Your task to perform on an android device: make emails show in primary in the gmail app Image 0: 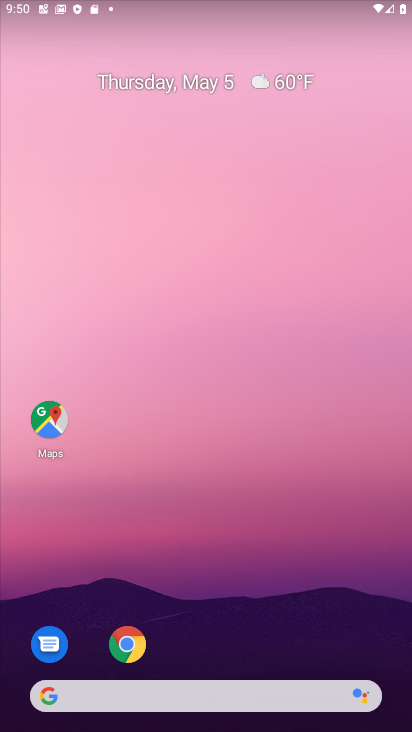
Step 0: click (234, 124)
Your task to perform on an android device: make emails show in primary in the gmail app Image 1: 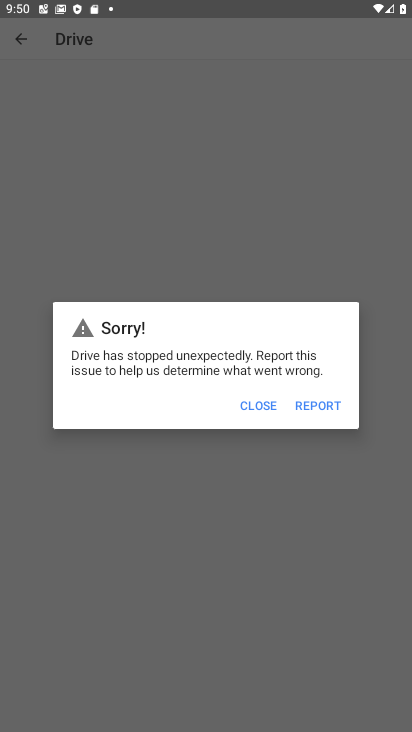
Step 1: press home button
Your task to perform on an android device: make emails show in primary in the gmail app Image 2: 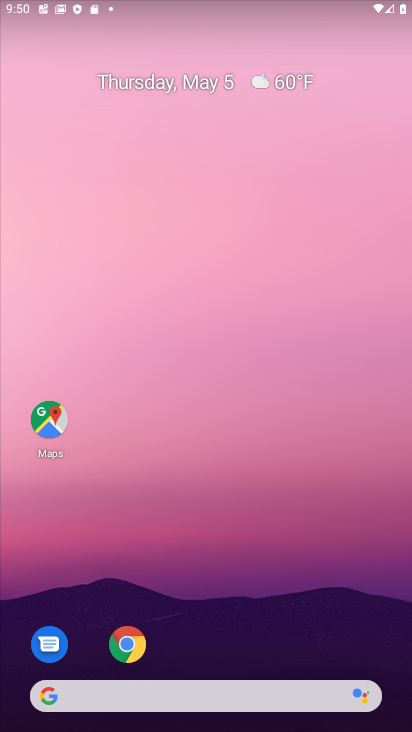
Step 2: drag from (222, 622) to (233, 193)
Your task to perform on an android device: make emails show in primary in the gmail app Image 3: 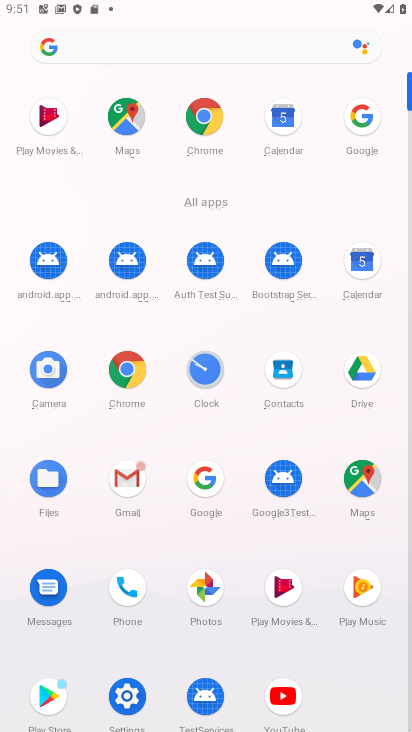
Step 3: click (133, 487)
Your task to perform on an android device: make emails show in primary in the gmail app Image 4: 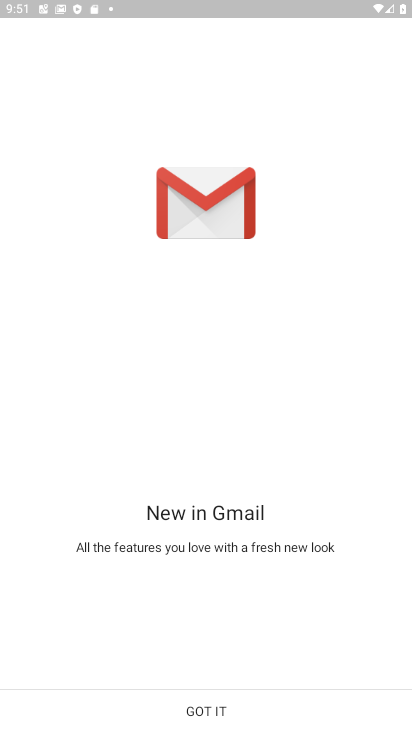
Step 4: click (220, 715)
Your task to perform on an android device: make emails show in primary in the gmail app Image 5: 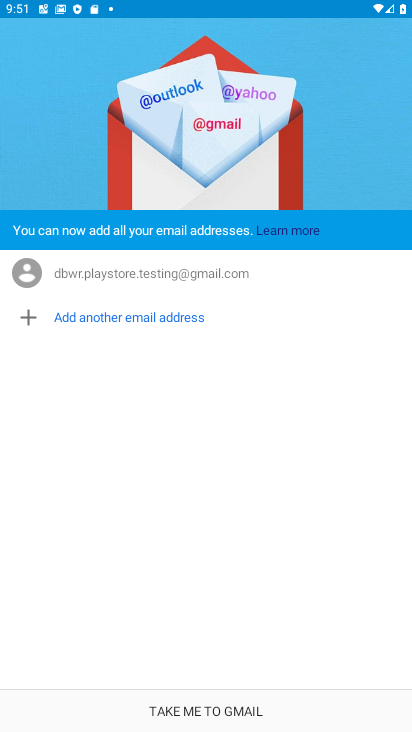
Step 5: click (220, 715)
Your task to perform on an android device: make emails show in primary in the gmail app Image 6: 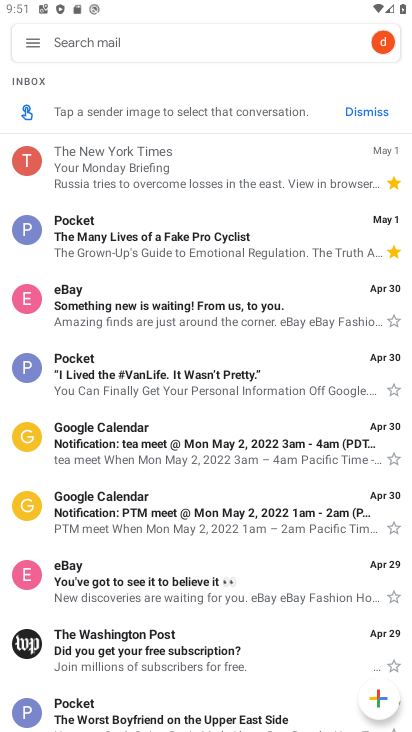
Step 6: click (29, 44)
Your task to perform on an android device: make emails show in primary in the gmail app Image 7: 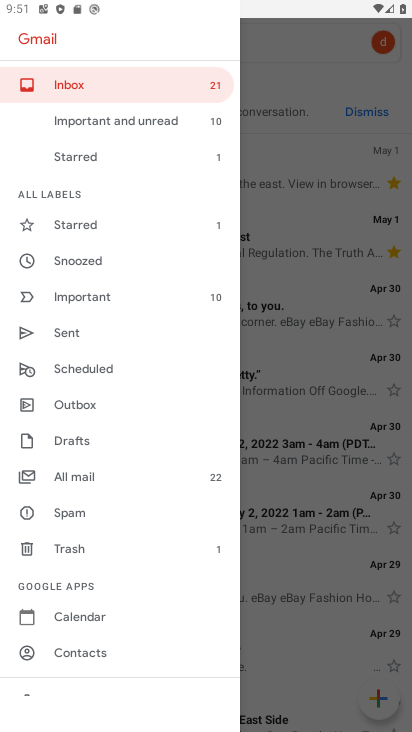
Step 7: click (331, 89)
Your task to perform on an android device: make emails show in primary in the gmail app Image 8: 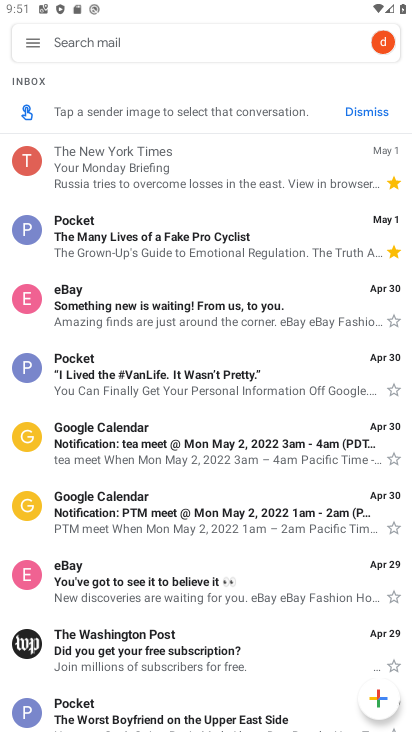
Step 8: click (32, 49)
Your task to perform on an android device: make emails show in primary in the gmail app Image 9: 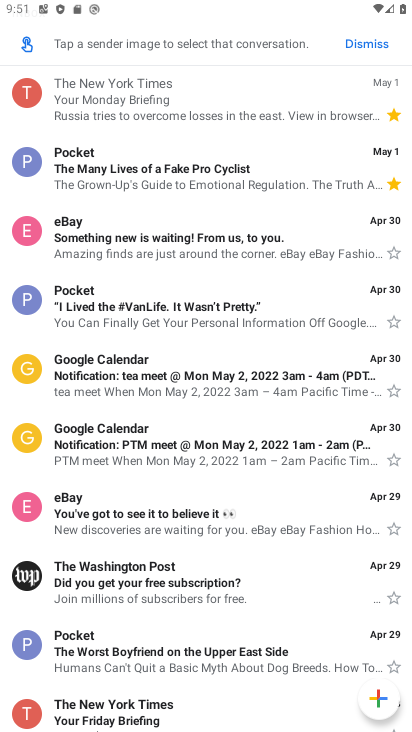
Step 9: click (30, 40)
Your task to perform on an android device: make emails show in primary in the gmail app Image 10: 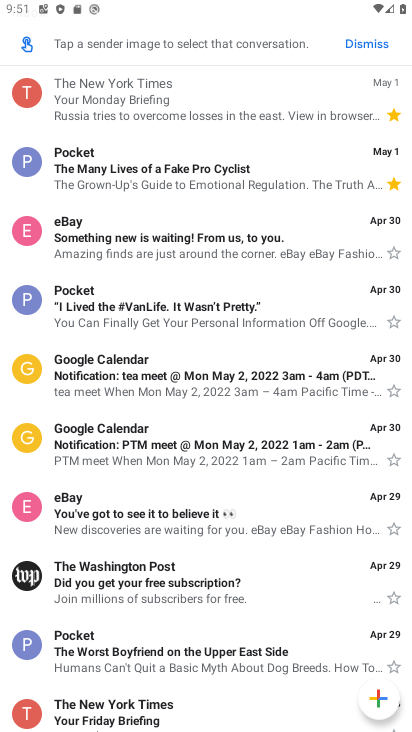
Step 10: click (368, 41)
Your task to perform on an android device: make emails show in primary in the gmail app Image 11: 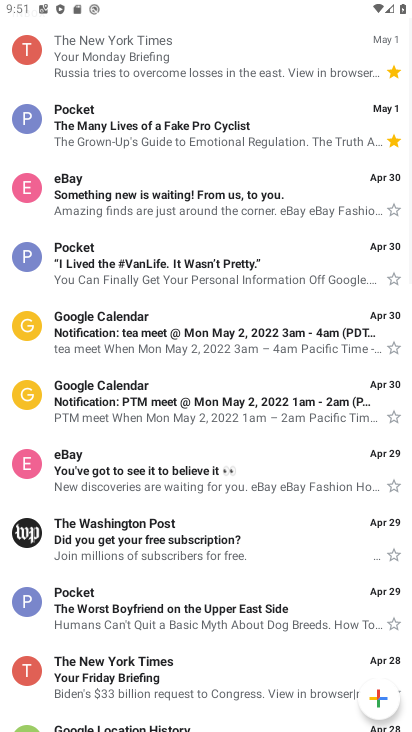
Step 11: drag from (90, 239) to (93, 612)
Your task to perform on an android device: make emails show in primary in the gmail app Image 12: 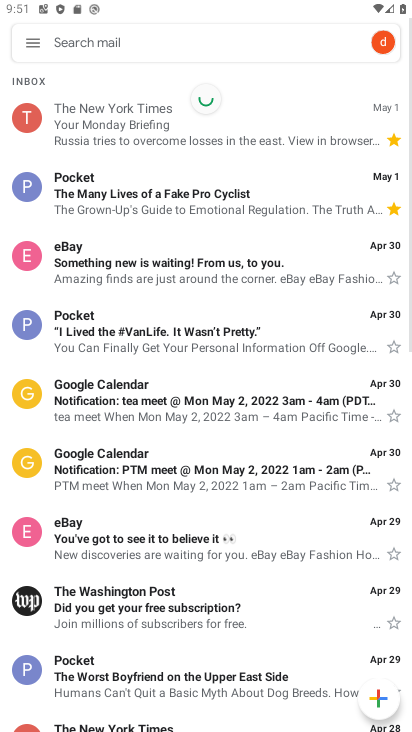
Step 12: click (32, 48)
Your task to perform on an android device: make emails show in primary in the gmail app Image 13: 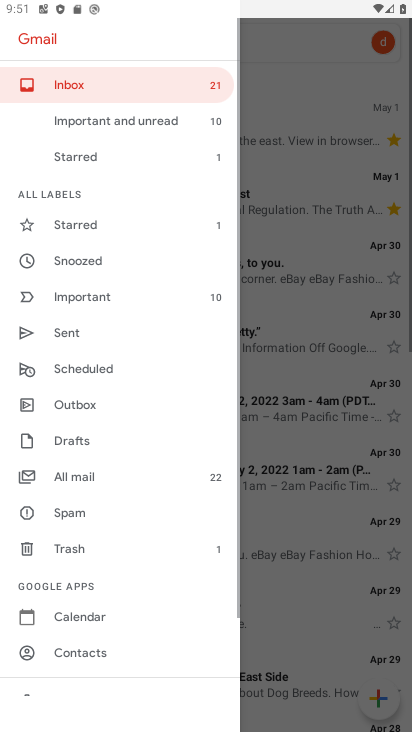
Step 13: drag from (98, 646) to (114, 300)
Your task to perform on an android device: make emails show in primary in the gmail app Image 14: 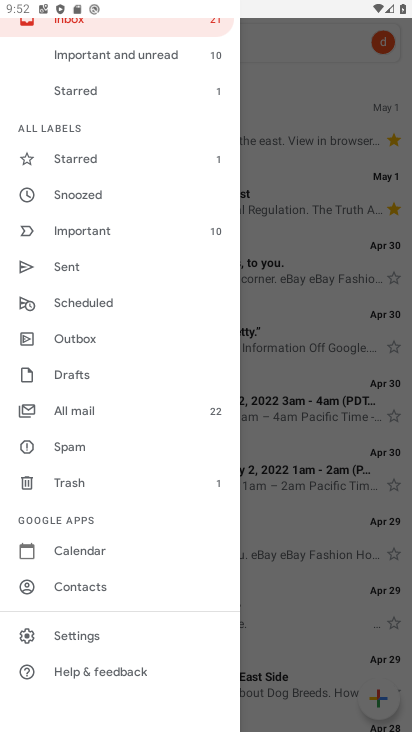
Step 14: click (84, 637)
Your task to perform on an android device: make emails show in primary in the gmail app Image 15: 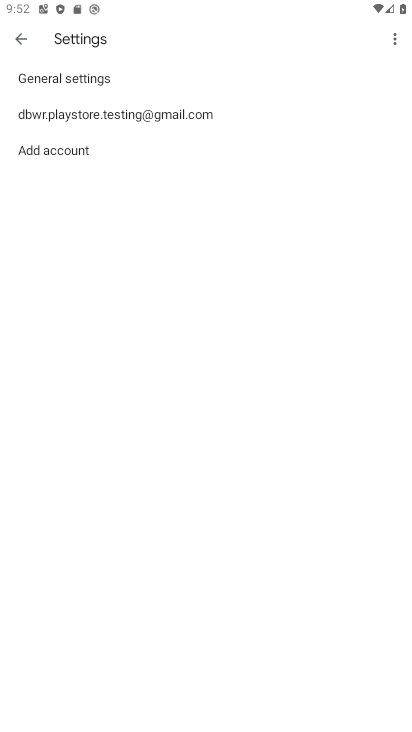
Step 15: click (119, 114)
Your task to perform on an android device: make emails show in primary in the gmail app Image 16: 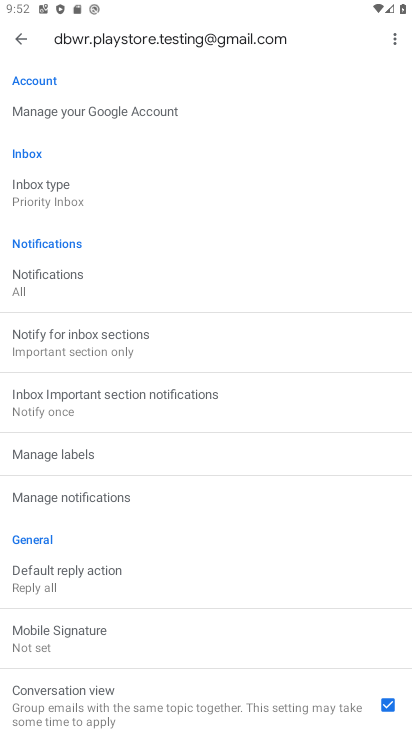
Step 16: click (68, 201)
Your task to perform on an android device: make emails show in primary in the gmail app Image 17: 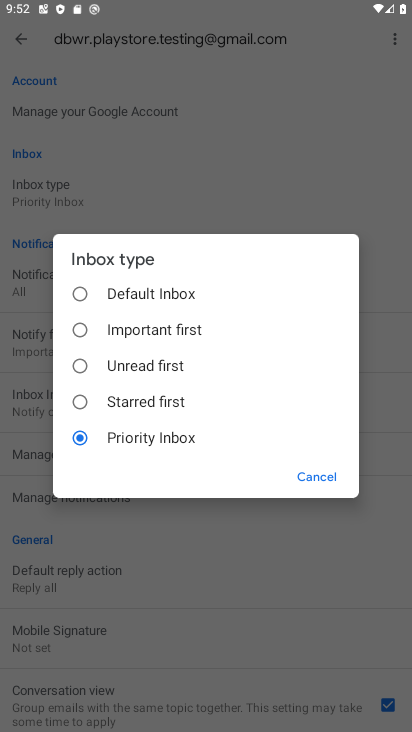
Step 17: click (162, 290)
Your task to perform on an android device: make emails show in primary in the gmail app Image 18: 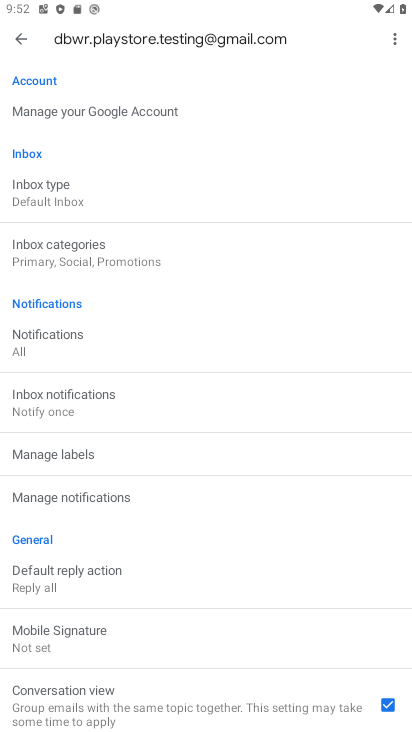
Step 18: press back button
Your task to perform on an android device: make emails show in primary in the gmail app Image 19: 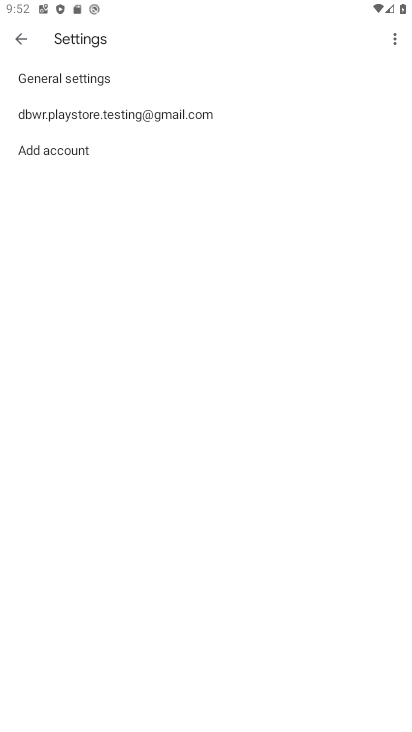
Step 19: press back button
Your task to perform on an android device: make emails show in primary in the gmail app Image 20: 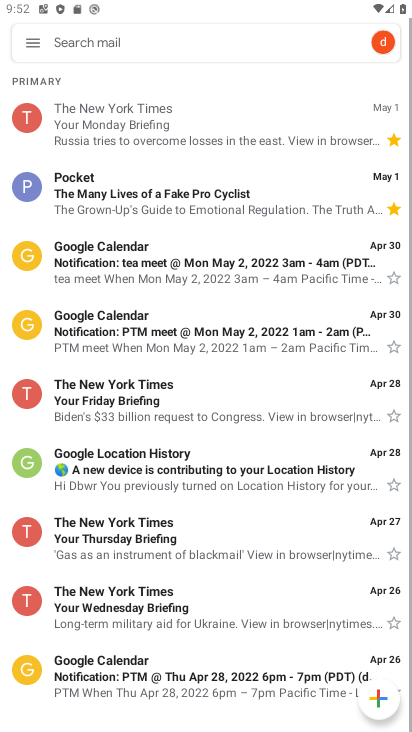
Step 20: click (22, 48)
Your task to perform on an android device: make emails show in primary in the gmail app Image 21: 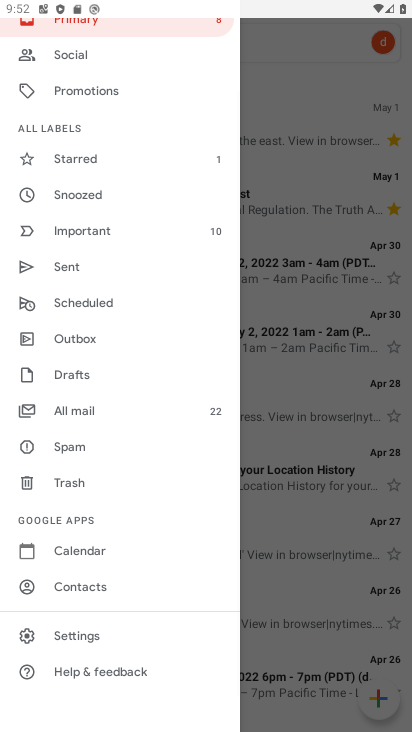
Step 21: click (91, 26)
Your task to perform on an android device: make emails show in primary in the gmail app Image 22: 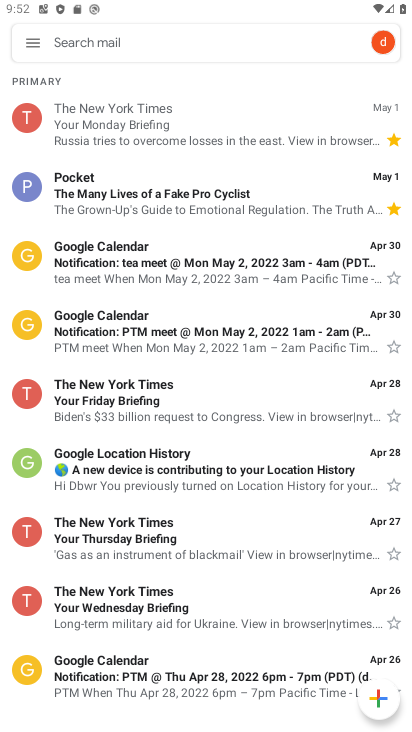
Step 22: task complete